Your task to perform on an android device: Open maps Image 0: 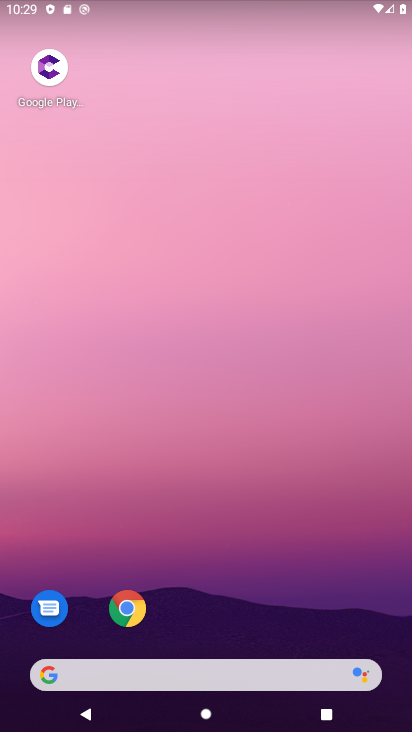
Step 0: drag from (254, 564) to (256, 96)
Your task to perform on an android device: Open maps Image 1: 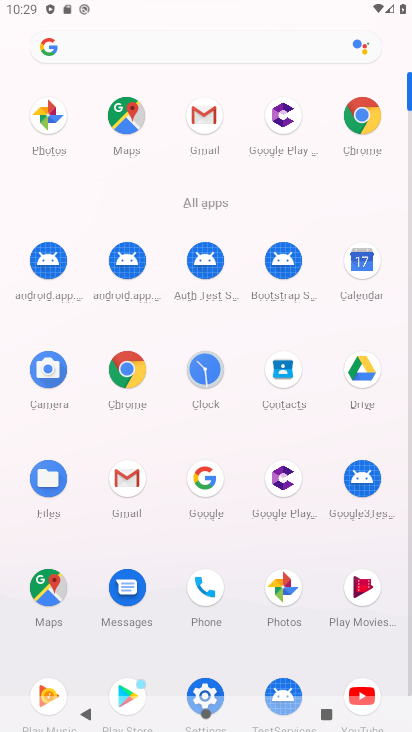
Step 1: click (136, 118)
Your task to perform on an android device: Open maps Image 2: 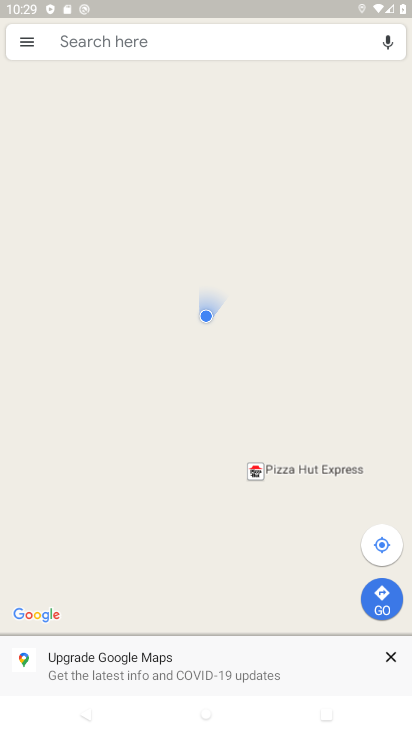
Step 2: task complete